Your task to perform on an android device: turn on the 12-hour format for clock Image 0: 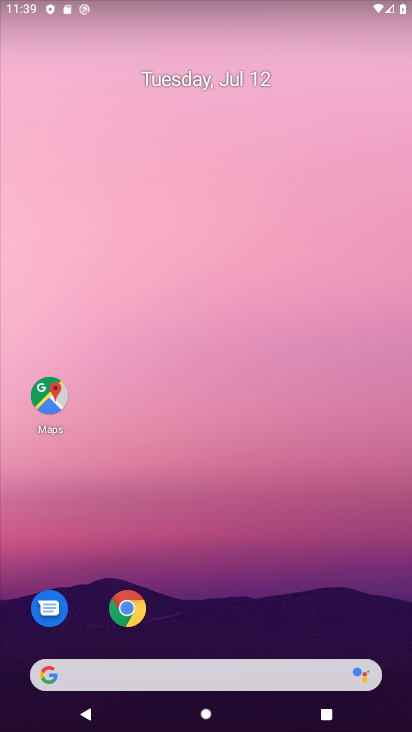
Step 0: drag from (215, 623) to (257, 74)
Your task to perform on an android device: turn on the 12-hour format for clock Image 1: 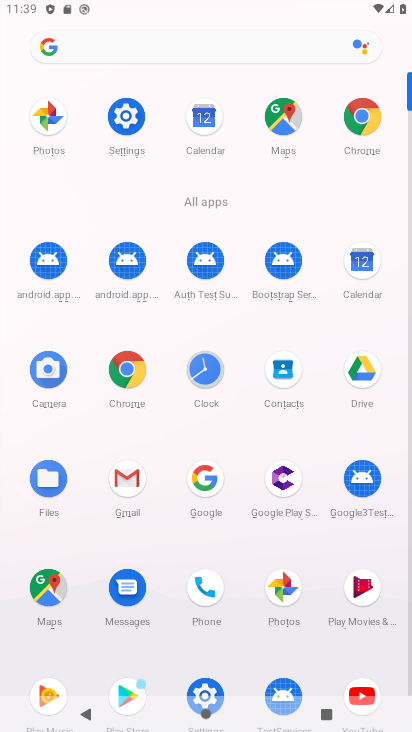
Step 1: click (198, 376)
Your task to perform on an android device: turn on the 12-hour format for clock Image 2: 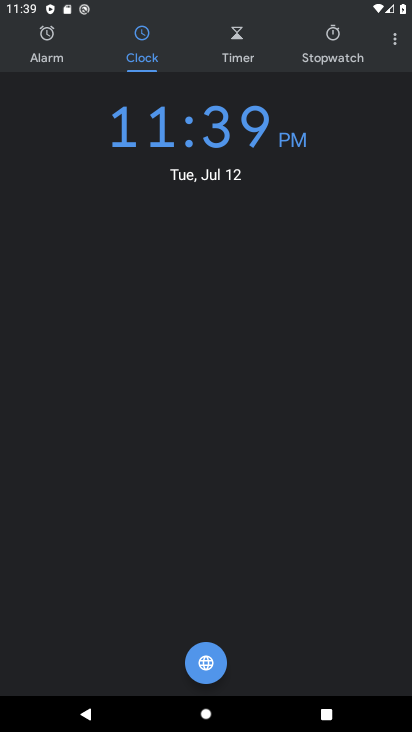
Step 2: drag from (399, 37) to (372, 68)
Your task to perform on an android device: turn on the 12-hour format for clock Image 3: 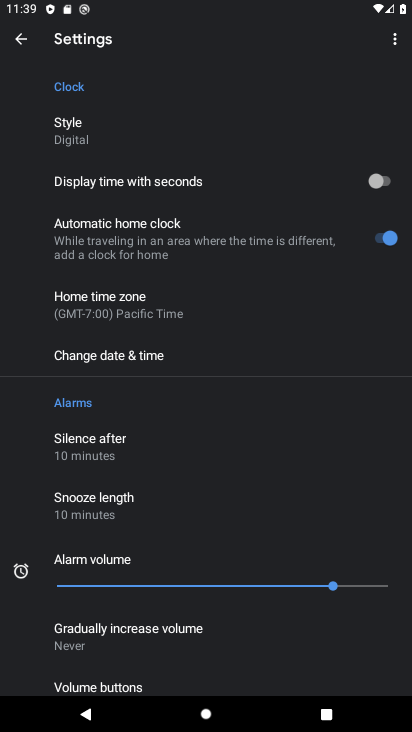
Step 3: click (150, 358)
Your task to perform on an android device: turn on the 12-hour format for clock Image 4: 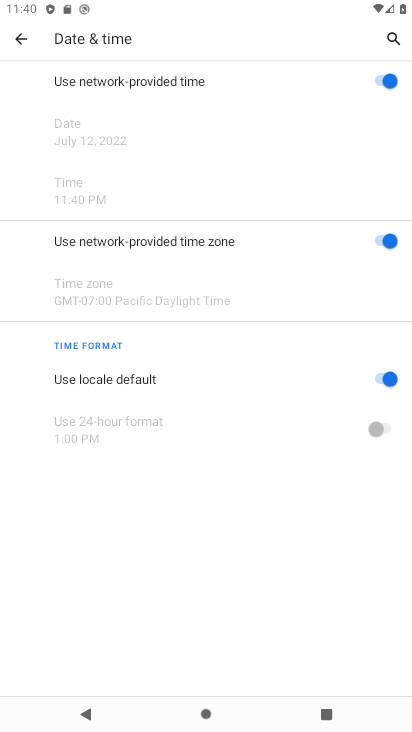
Step 4: task complete